Your task to perform on an android device: Go to eBay Image 0: 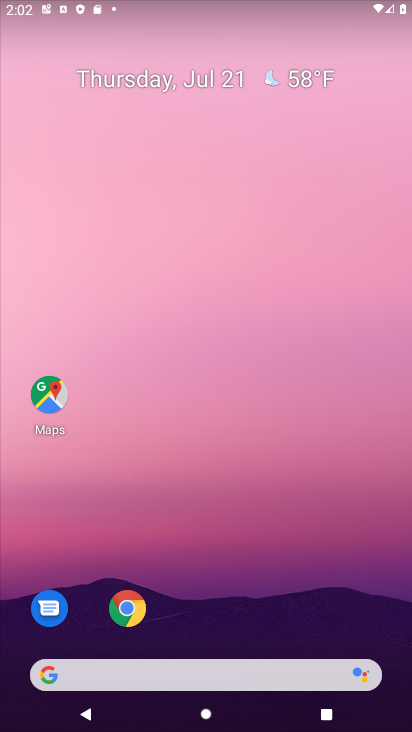
Step 0: drag from (314, 621) to (127, 6)
Your task to perform on an android device: Go to eBay Image 1: 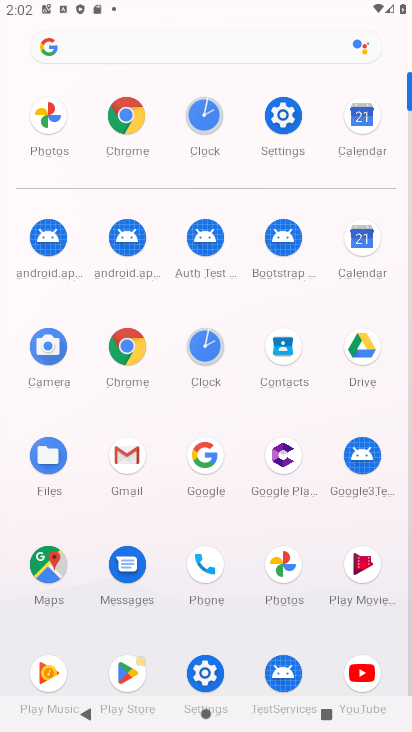
Step 1: click (219, 463)
Your task to perform on an android device: Go to eBay Image 2: 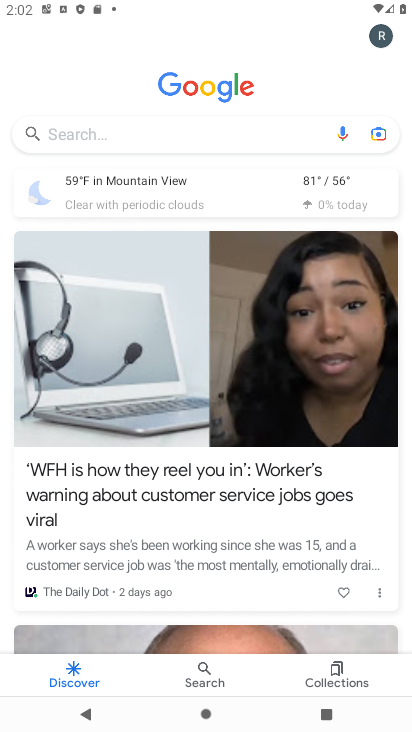
Step 2: click (98, 129)
Your task to perform on an android device: Go to eBay Image 3: 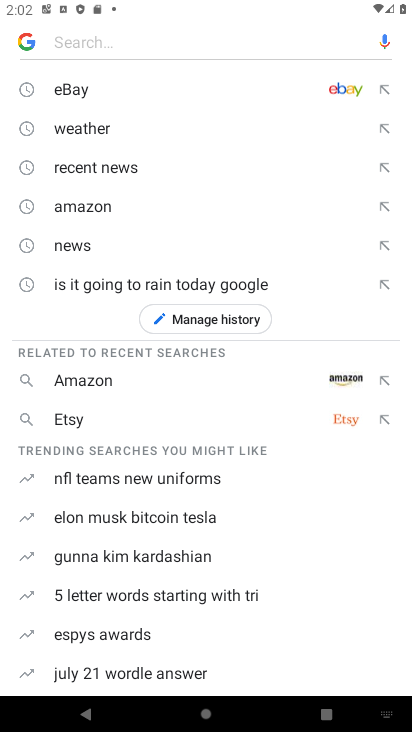
Step 3: click (71, 99)
Your task to perform on an android device: Go to eBay Image 4: 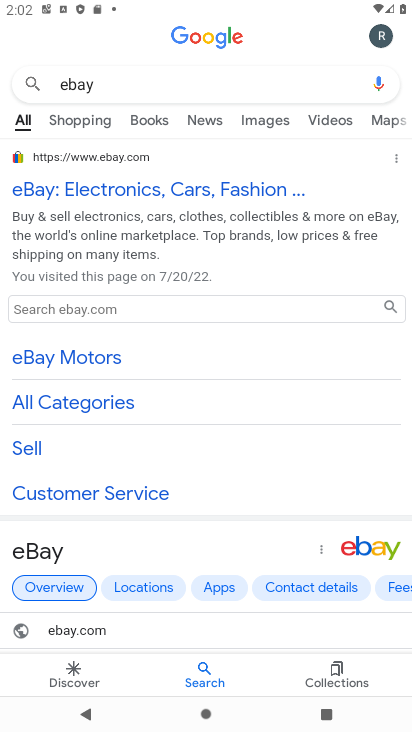
Step 4: task complete